Your task to perform on an android device: check android version Image 0: 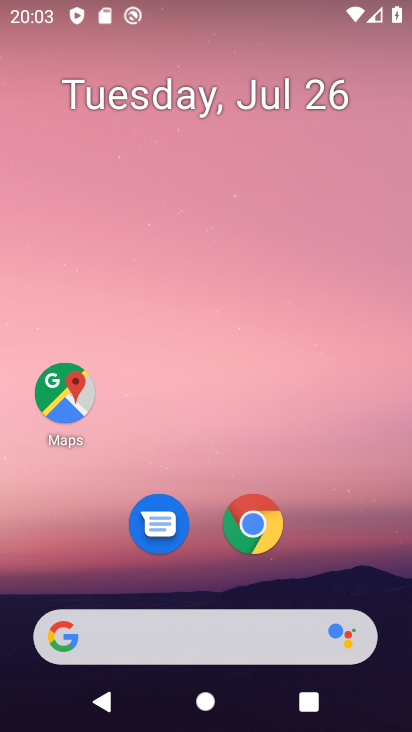
Step 0: drag from (177, 646) to (283, 132)
Your task to perform on an android device: check android version Image 1: 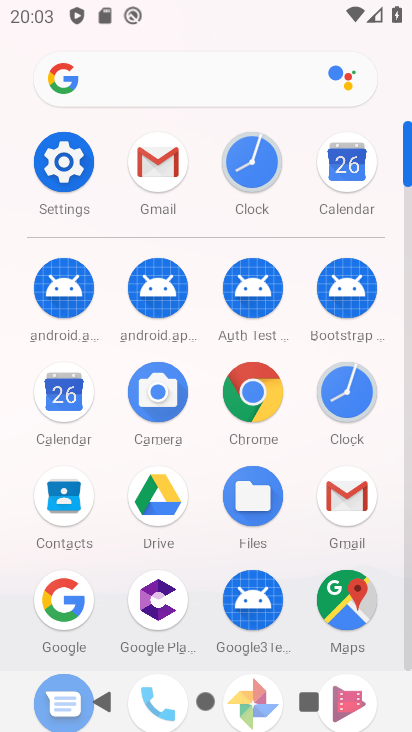
Step 1: click (69, 170)
Your task to perform on an android device: check android version Image 2: 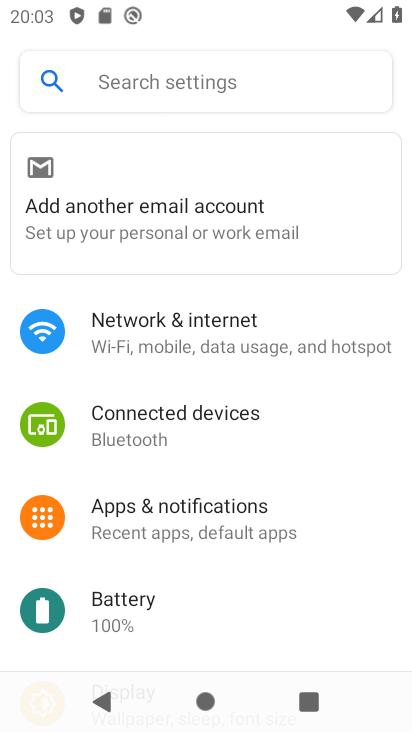
Step 2: drag from (208, 611) to (353, 107)
Your task to perform on an android device: check android version Image 3: 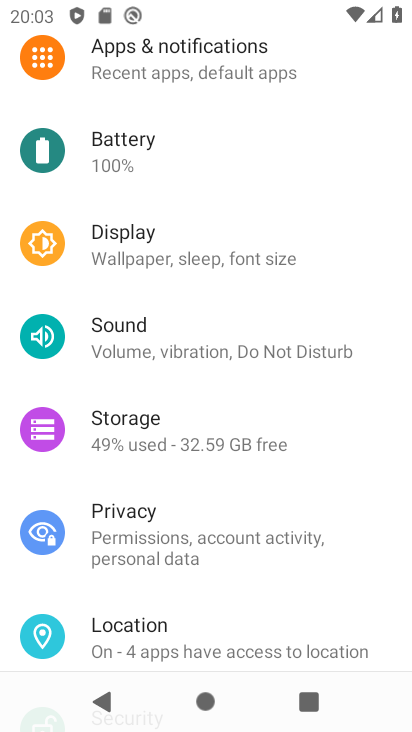
Step 3: drag from (227, 592) to (327, 79)
Your task to perform on an android device: check android version Image 4: 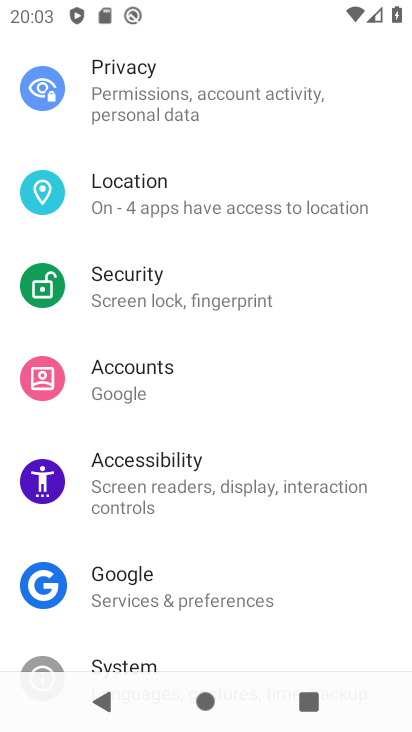
Step 4: drag from (210, 581) to (334, 98)
Your task to perform on an android device: check android version Image 5: 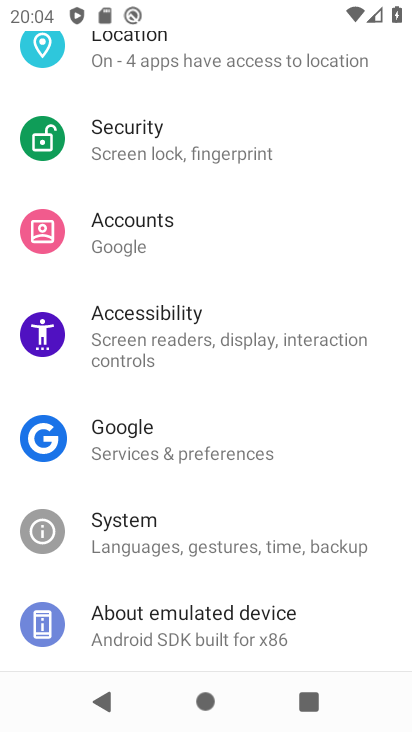
Step 5: click (193, 628)
Your task to perform on an android device: check android version Image 6: 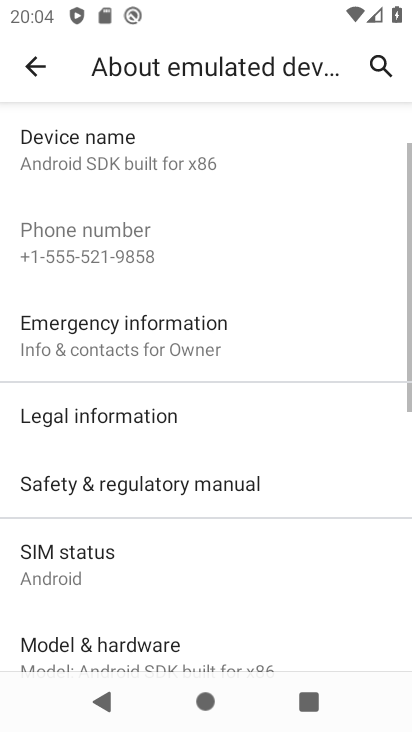
Step 6: drag from (254, 583) to (329, 145)
Your task to perform on an android device: check android version Image 7: 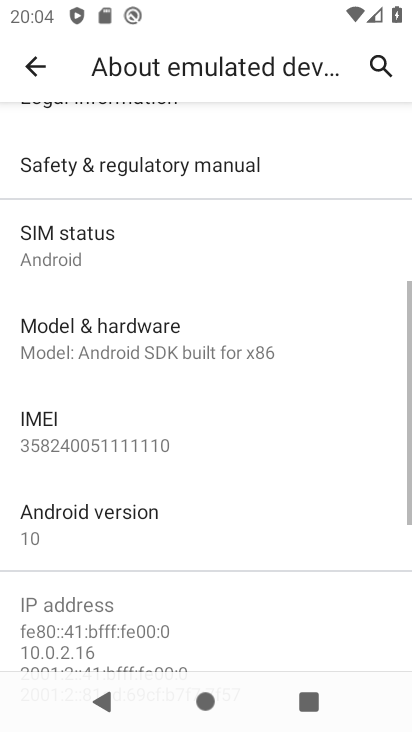
Step 7: click (127, 518)
Your task to perform on an android device: check android version Image 8: 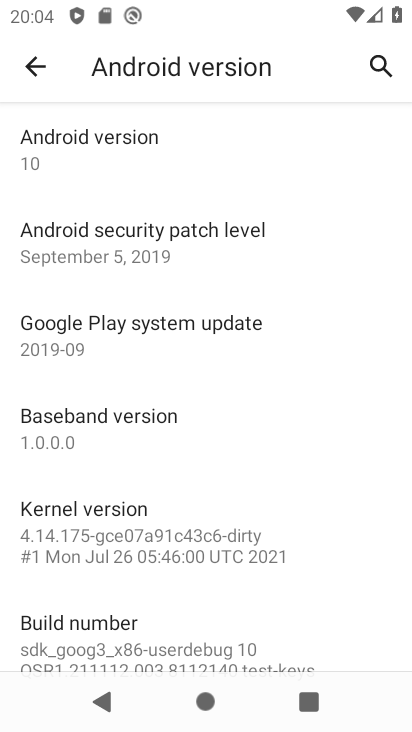
Step 8: task complete